Your task to perform on an android device: Open the Play Movies app and select the watchlist tab. Image 0: 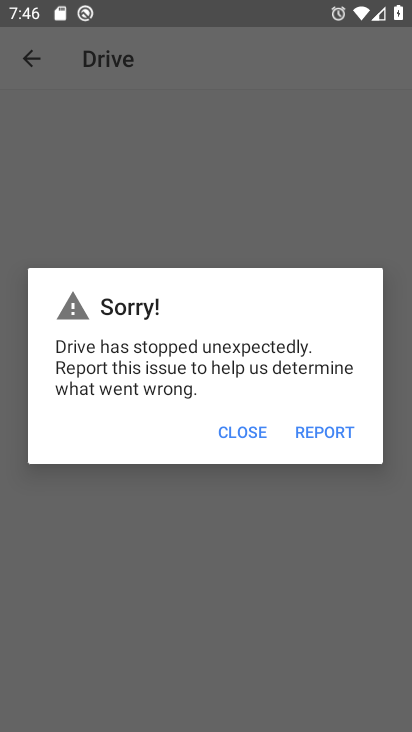
Step 0: press home button
Your task to perform on an android device: Open the Play Movies app and select the watchlist tab. Image 1: 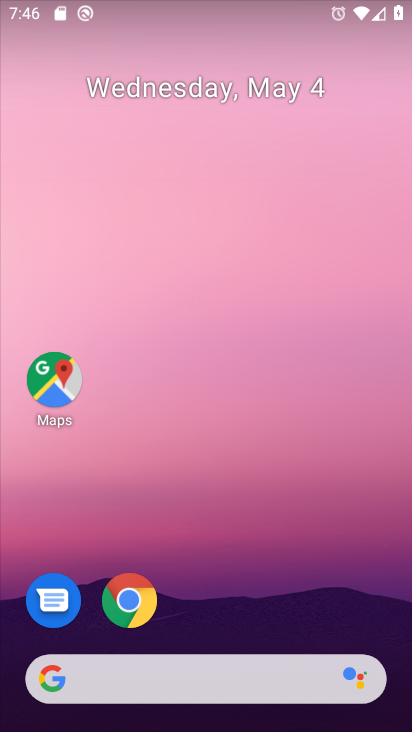
Step 1: drag from (178, 652) to (312, 5)
Your task to perform on an android device: Open the Play Movies app and select the watchlist tab. Image 2: 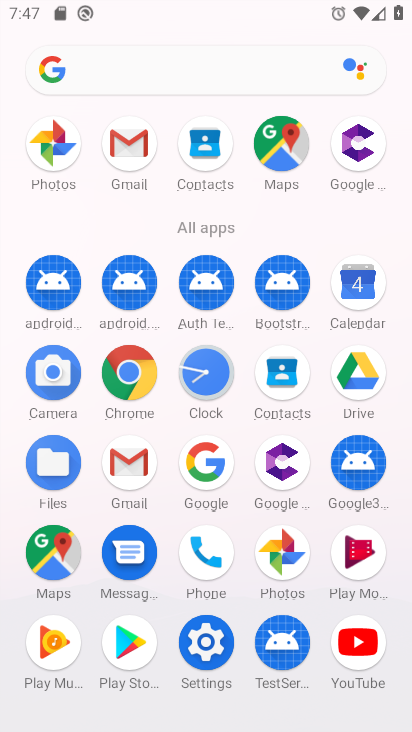
Step 2: click (351, 569)
Your task to perform on an android device: Open the Play Movies app and select the watchlist tab. Image 3: 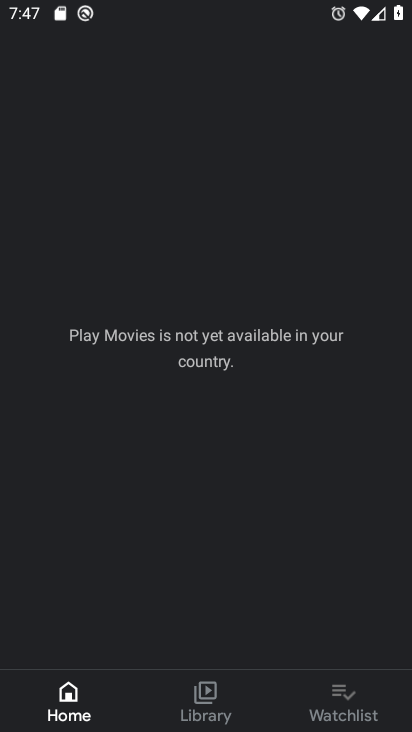
Step 3: click (348, 686)
Your task to perform on an android device: Open the Play Movies app and select the watchlist tab. Image 4: 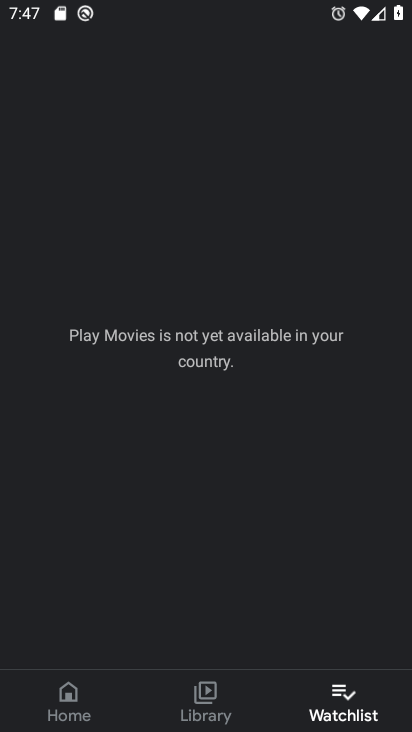
Step 4: task complete